Your task to perform on an android device: find snoozed emails in the gmail app Image 0: 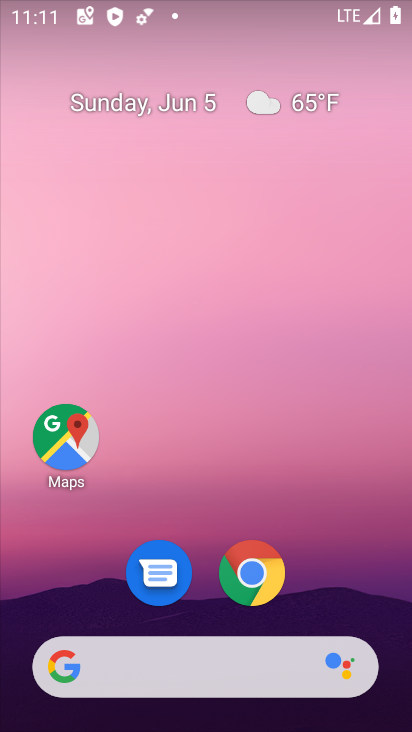
Step 0: drag from (224, 506) to (220, 108)
Your task to perform on an android device: find snoozed emails in the gmail app Image 1: 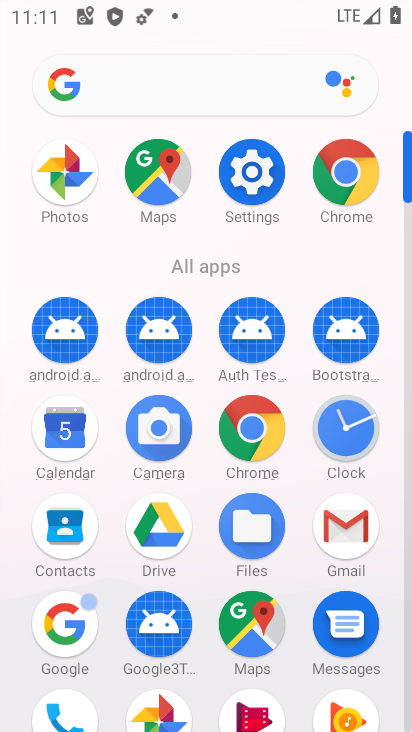
Step 1: drag from (207, 294) to (235, 44)
Your task to perform on an android device: find snoozed emails in the gmail app Image 2: 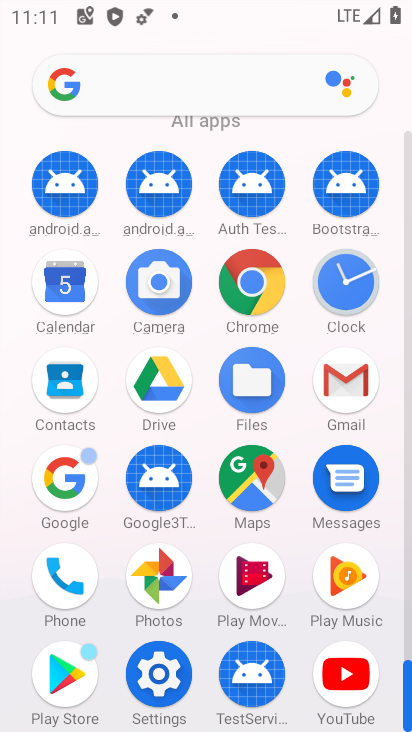
Step 2: click (343, 399)
Your task to perform on an android device: find snoozed emails in the gmail app Image 3: 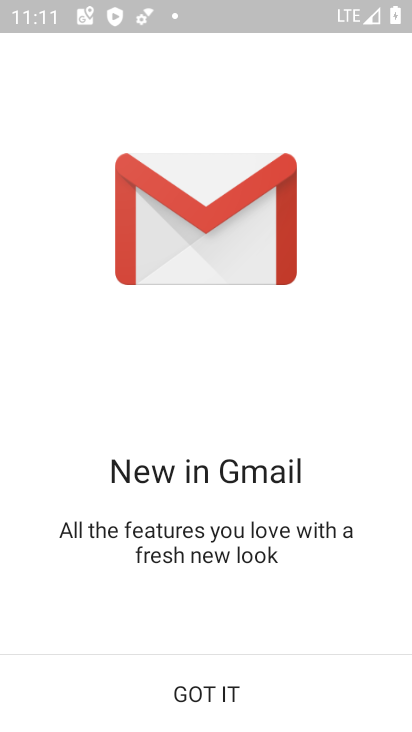
Step 3: click (214, 683)
Your task to perform on an android device: find snoozed emails in the gmail app Image 4: 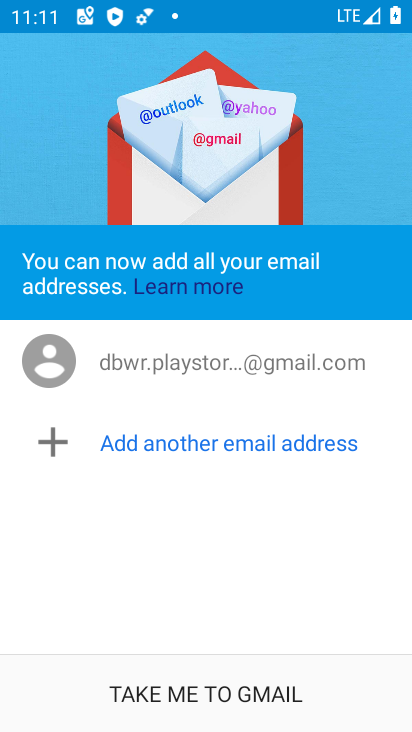
Step 4: click (277, 690)
Your task to perform on an android device: find snoozed emails in the gmail app Image 5: 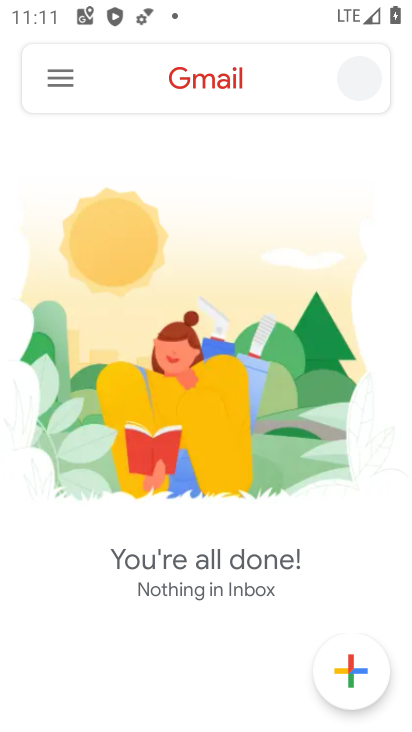
Step 5: click (57, 76)
Your task to perform on an android device: find snoozed emails in the gmail app Image 6: 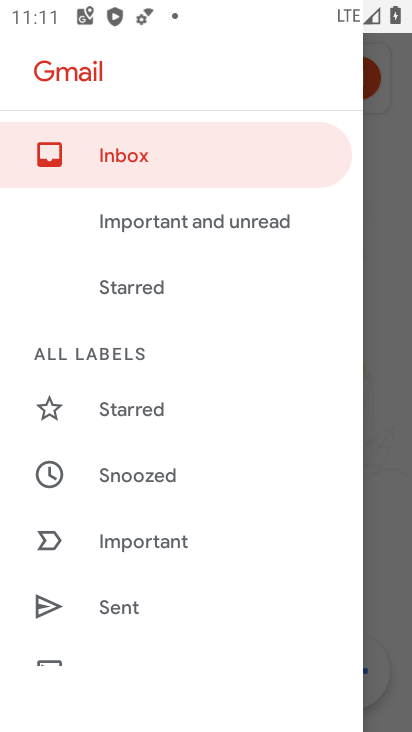
Step 6: click (161, 470)
Your task to perform on an android device: find snoozed emails in the gmail app Image 7: 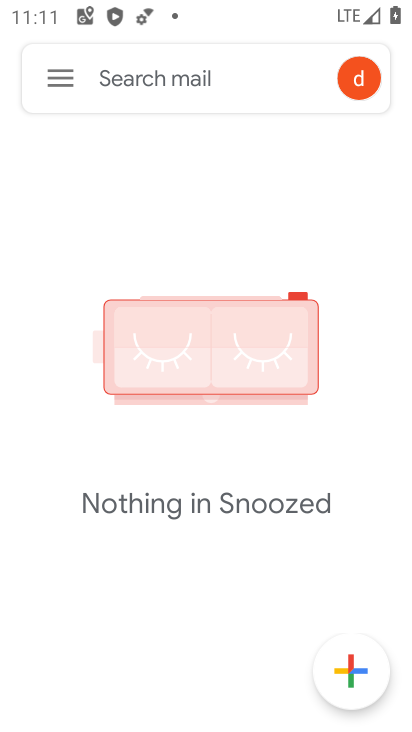
Step 7: task complete